Your task to perform on an android device: remove spam from my inbox in the gmail app Image 0: 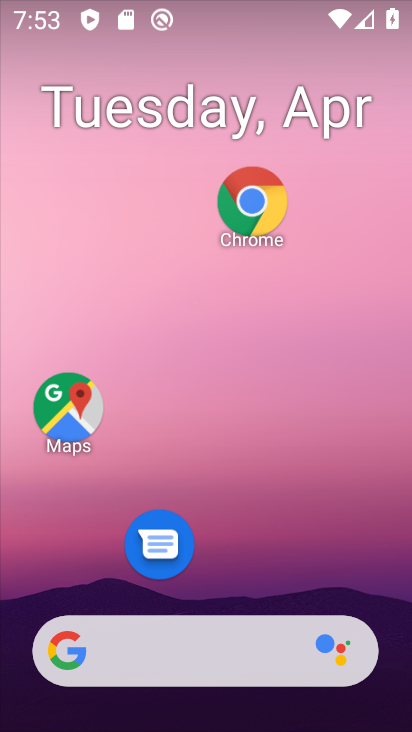
Step 0: drag from (207, 453) to (264, 125)
Your task to perform on an android device: remove spam from my inbox in the gmail app Image 1: 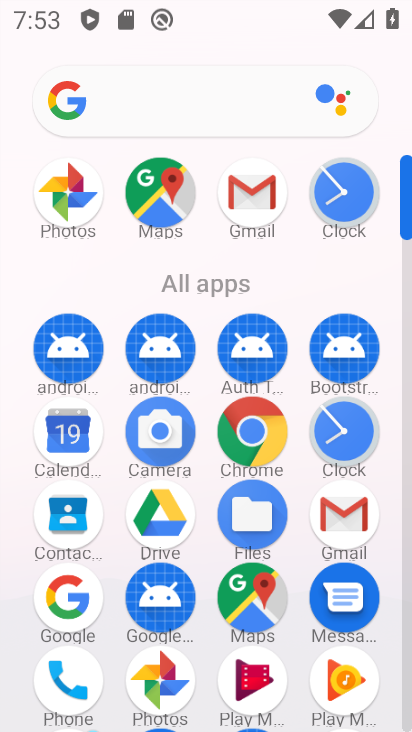
Step 1: click (229, 191)
Your task to perform on an android device: remove spam from my inbox in the gmail app Image 2: 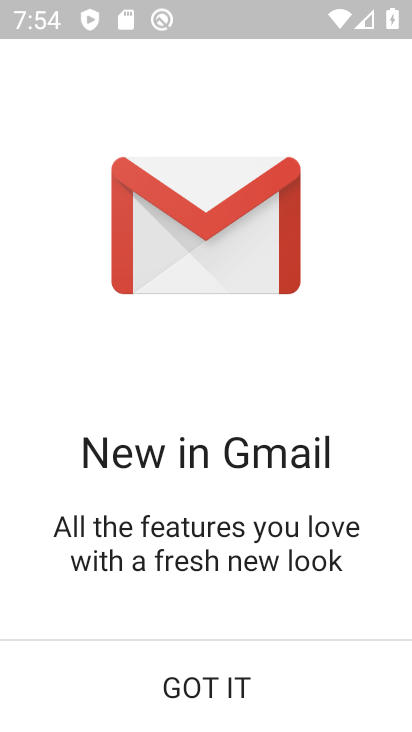
Step 2: click (236, 687)
Your task to perform on an android device: remove spam from my inbox in the gmail app Image 3: 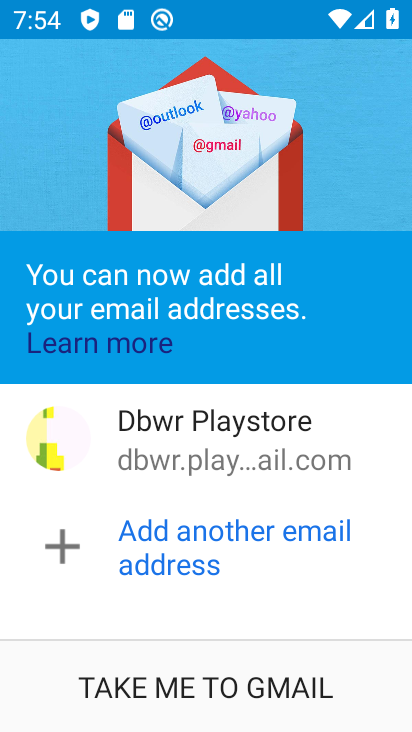
Step 3: click (206, 684)
Your task to perform on an android device: remove spam from my inbox in the gmail app Image 4: 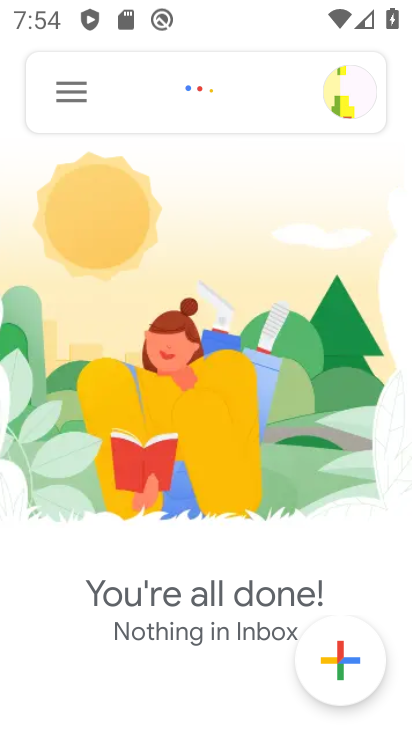
Step 4: click (75, 94)
Your task to perform on an android device: remove spam from my inbox in the gmail app Image 5: 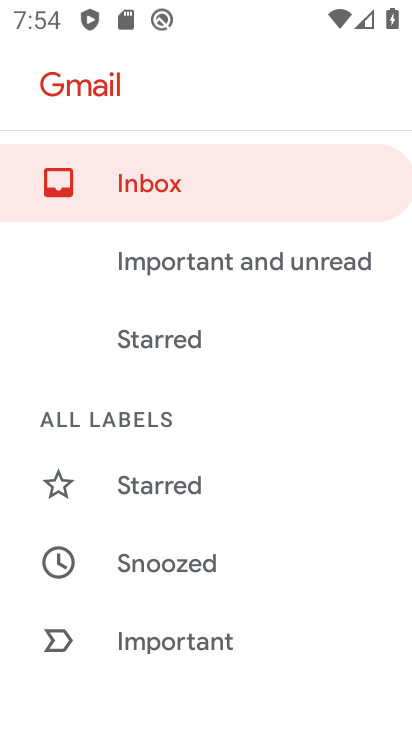
Step 5: drag from (184, 570) to (221, 276)
Your task to perform on an android device: remove spam from my inbox in the gmail app Image 6: 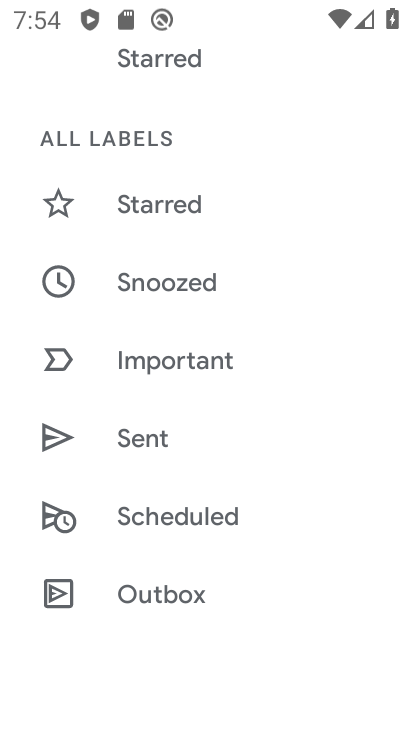
Step 6: drag from (168, 533) to (238, 79)
Your task to perform on an android device: remove spam from my inbox in the gmail app Image 7: 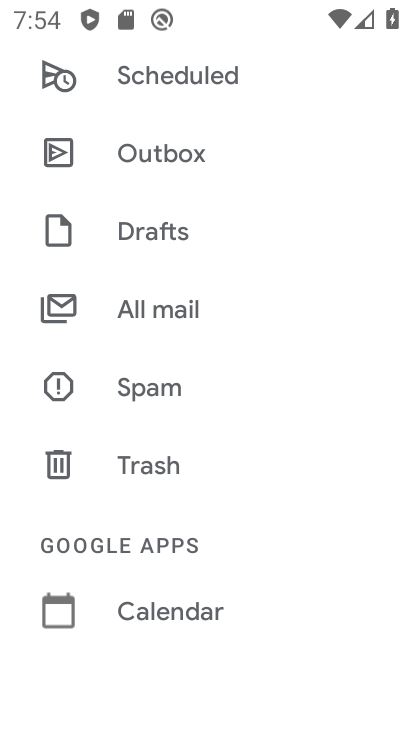
Step 7: click (142, 385)
Your task to perform on an android device: remove spam from my inbox in the gmail app Image 8: 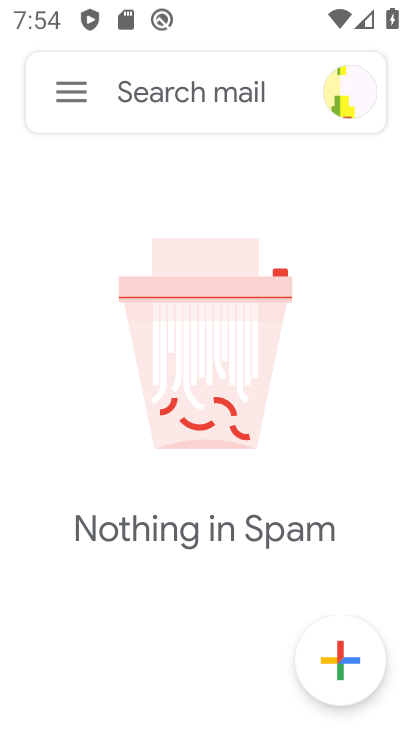
Step 8: task complete